Your task to perform on an android device: Do I have any events this weekend? Image 0: 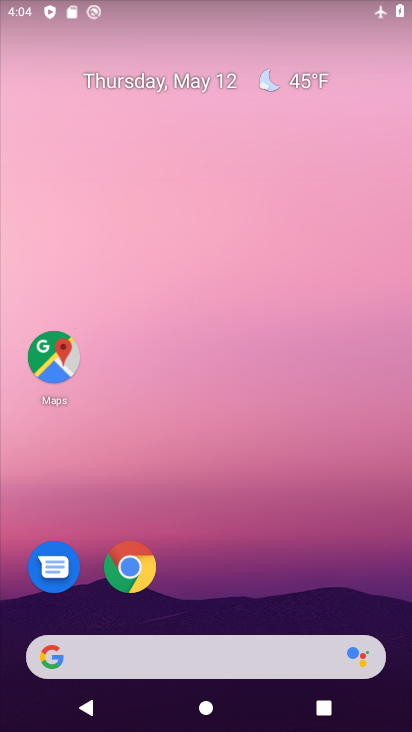
Step 0: drag from (211, 603) to (171, 211)
Your task to perform on an android device: Do I have any events this weekend? Image 1: 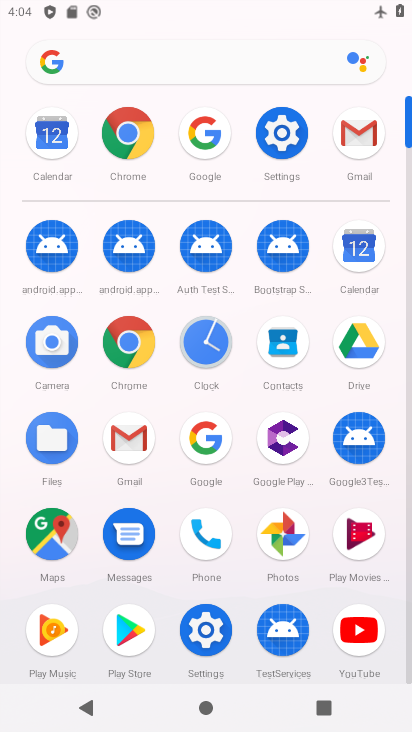
Step 1: click (56, 140)
Your task to perform on an android device: Do I have any events this weekend? Image 2: 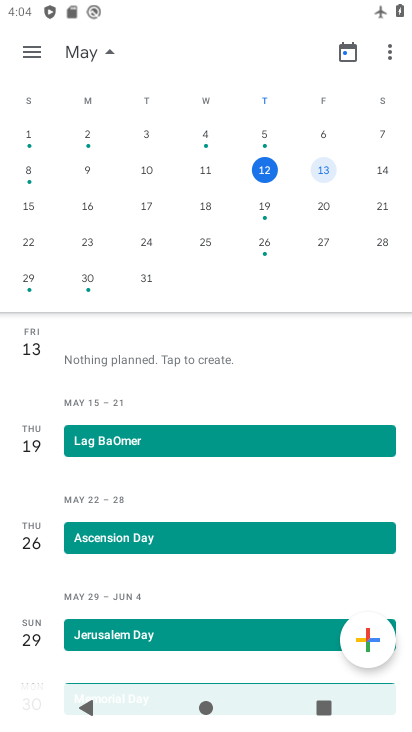
Step 2: click (383, 170)
Your task to perform on an android device: Do I have any events this weekend? Image 3: 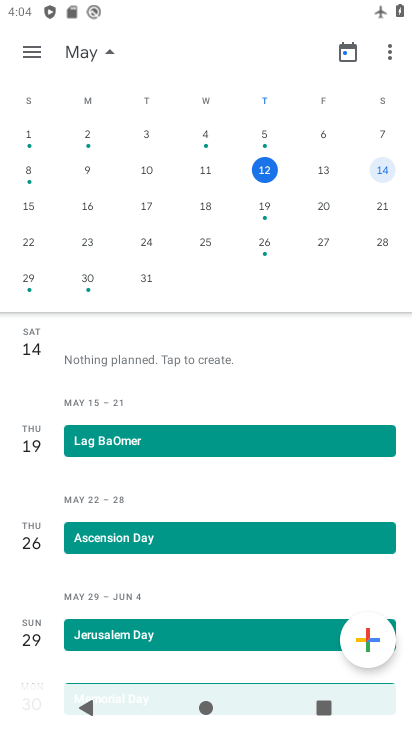
Step 3: click (332, 168)
Your task to perform on an android device: Do I have any events this weekend? Image 4: 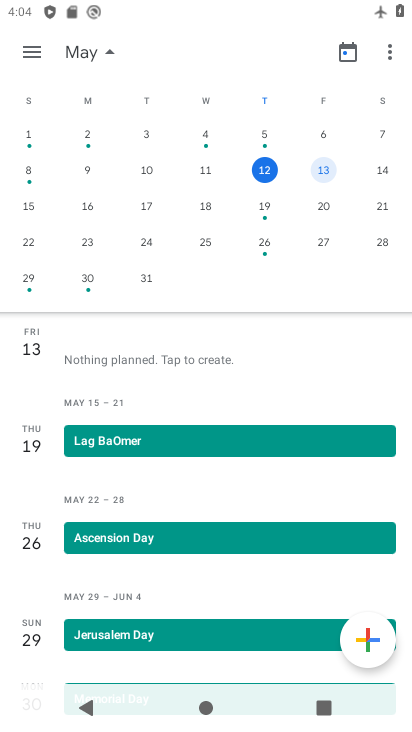
Step 4: click (379, 170)
Your task to perform on an android device: Do I have any events this weekend? Image 5: 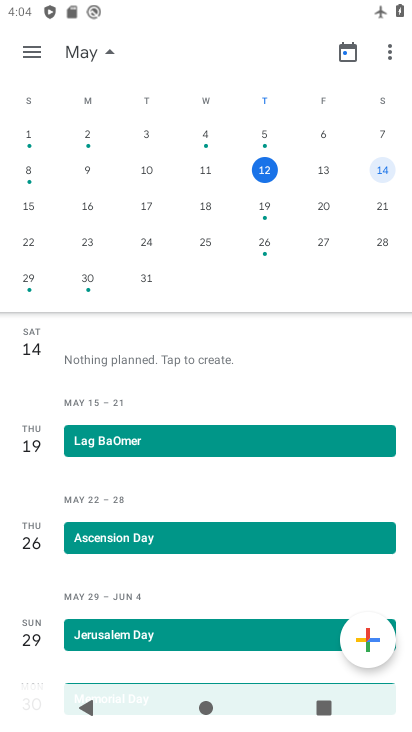
Step 5: task complete